Your task to perform on an android device: turn on airplane mode Image 0: 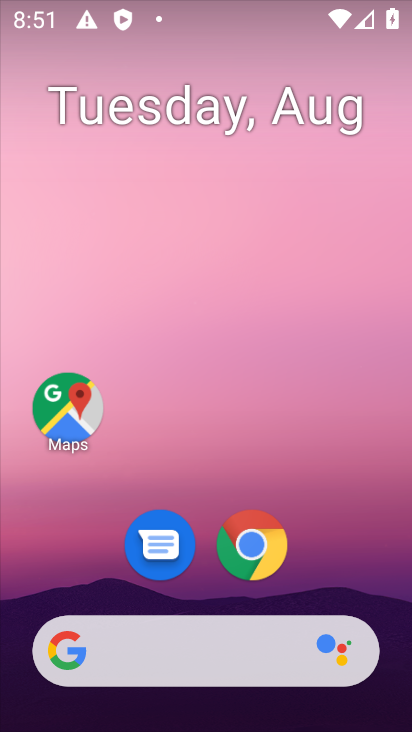
Step 0: drag from (253, 233) to (350, 2)
Your task to perform on an android device: turn on airplane mode Image 1: 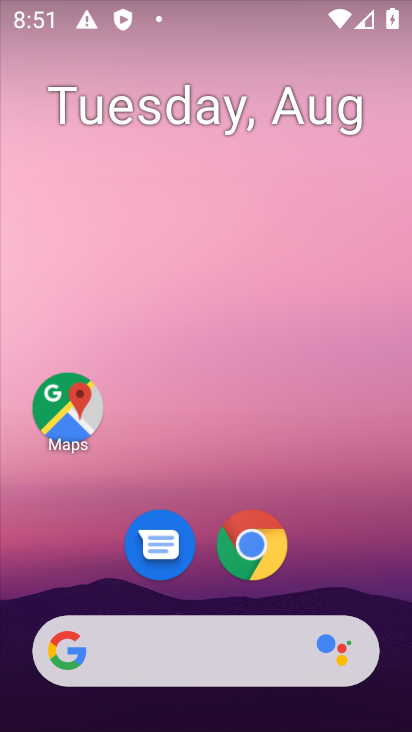
Step 1: drag from (354, 18) to (326, 498)
Your task to perform on an android device: turn on airplane mode Image 2: 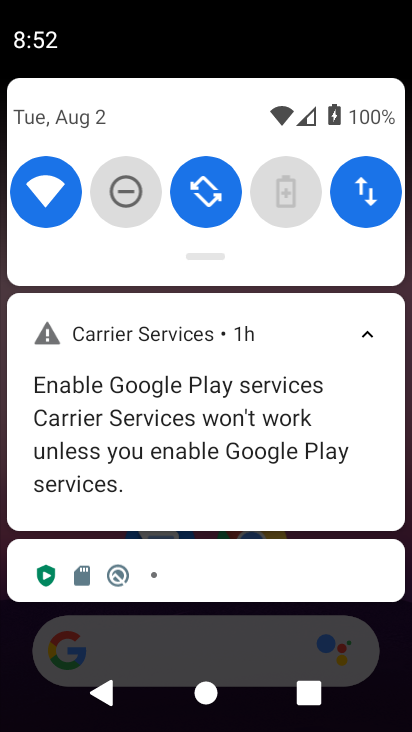
Step 2: drag from (281, 145) to (313, 480)
Your task to perform on an android device: turn on airplane mode Image 3: 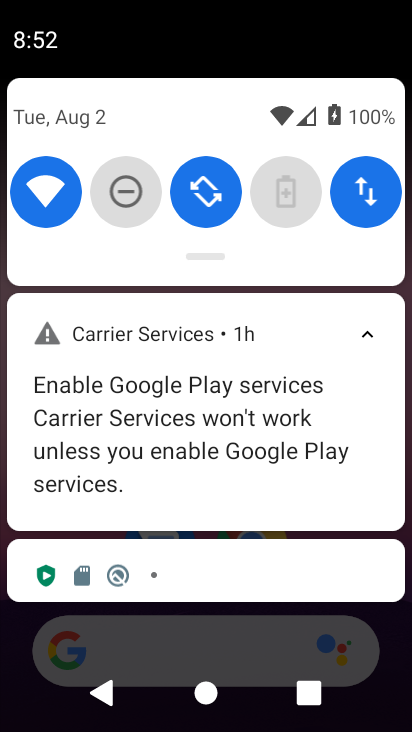
Step 3: drag from (208, 250) to (149, 546)
Your task to perform on an android device: turn on airplane mode Image 4: 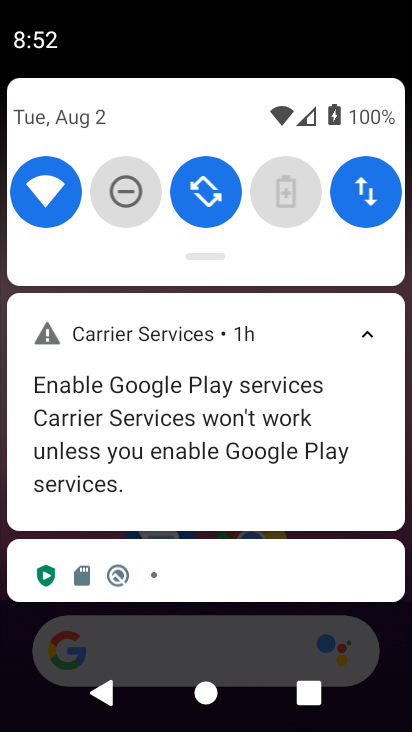
Step 4: drag from (229, 110) to (216, 372)
Your task to perform on an android device: turn on airplane mode Image 5: 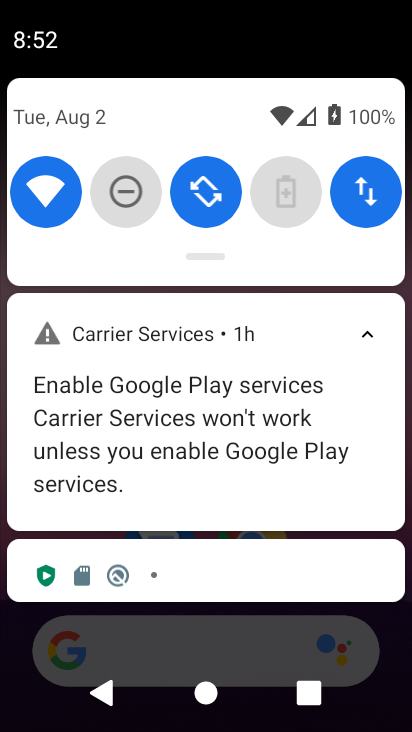
Step 5: drag from (214, 137) to (166, 408)
Your task to perform on an android device: turn on airplane mode Image 6: 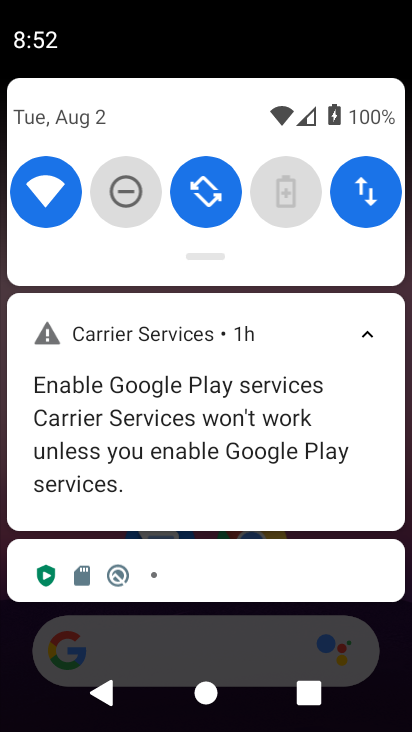
Step 6: press back button
Your task to perform on an android device: turn on airplane mode Image 7: 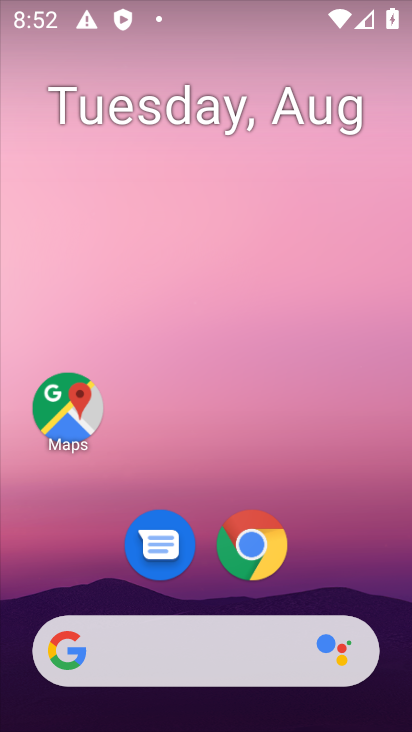
Step 7: drag from (91, 476) to (245, 114)
Your task to perform on an android device: turn on airplane mode Image 8: 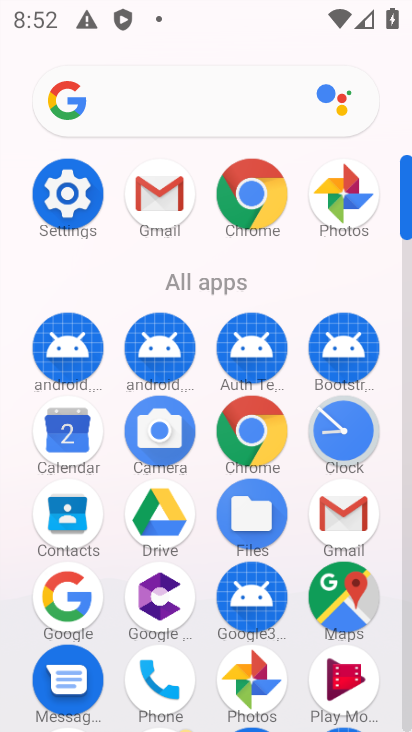
Step 8: click (66, 186)
Your task to perform on an android device: turn on airplane mode Image 9: 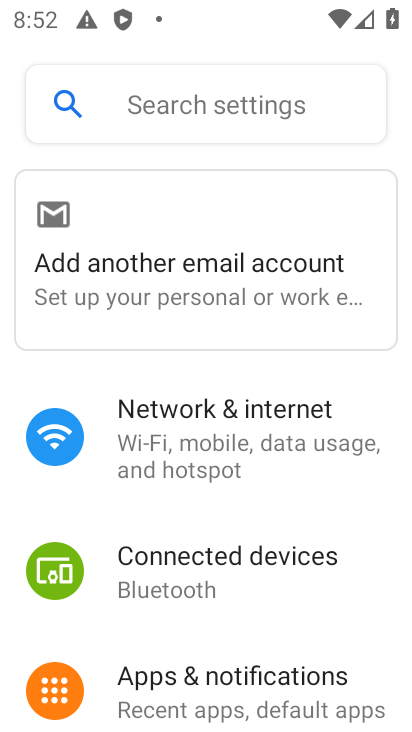
Step 9: click (154, 444)
Your task to perform on an android device: turn on airplane mode Image 10: 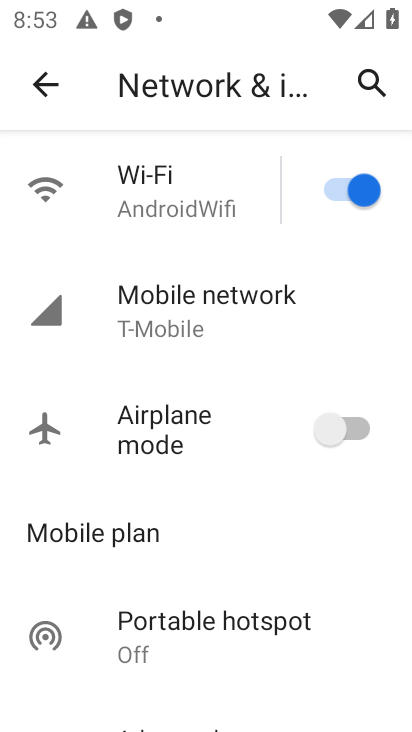
Step 10: click (324, 431)
Your task to perform on an android device: turn on airplane mode Image 11: 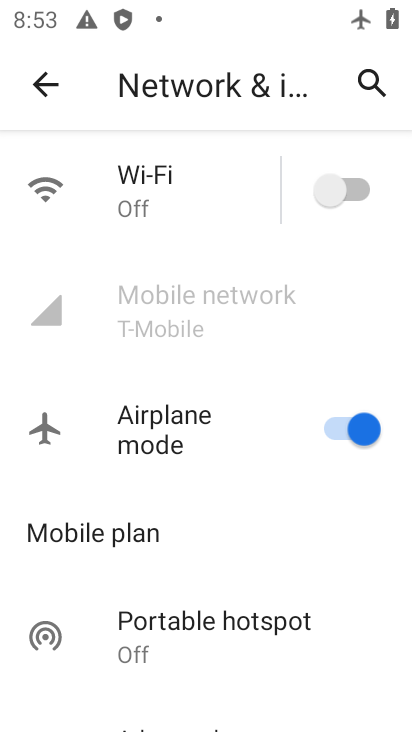
Step 11: task complete